Your task to perform on an android device: Open notification settings Image 0: 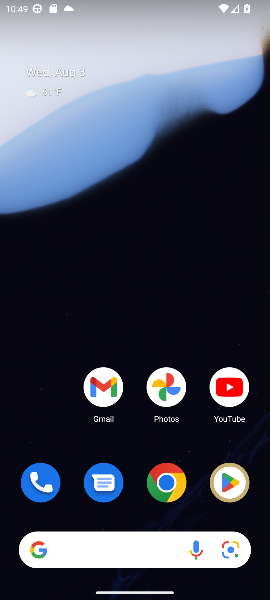
Step 0: drag from (142, 518) to (112, 92)
Your task to perform on an android device: Open notification settings Image 1: 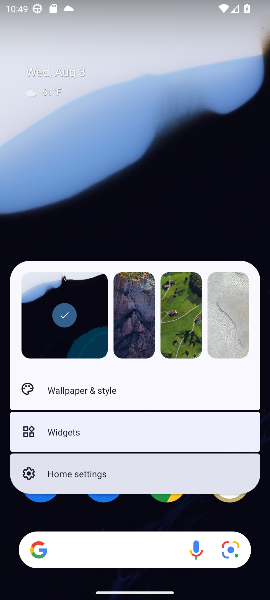
Step 1: click (112, 92)
Your task to perform on an android device: Open notification settings Image 2: 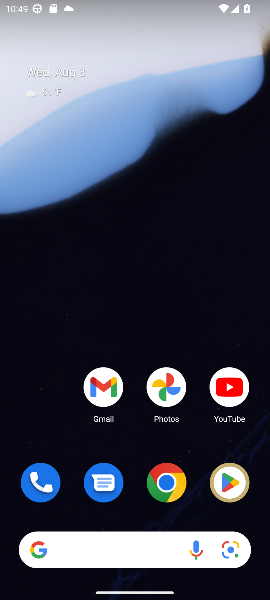
Step 2: drag from (64, 512) to (55, 49)
Your task to perform on an android device: Open notification settings Image 3: 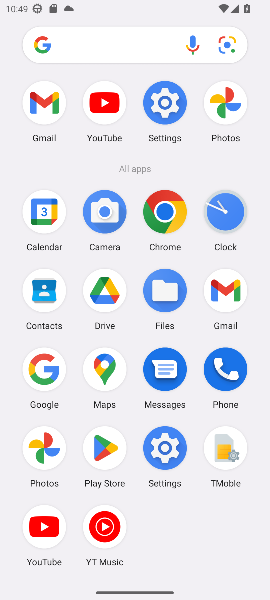
Step 3: click (151, 114)
Your task to perform on an android device: Open notification settings Image 4: 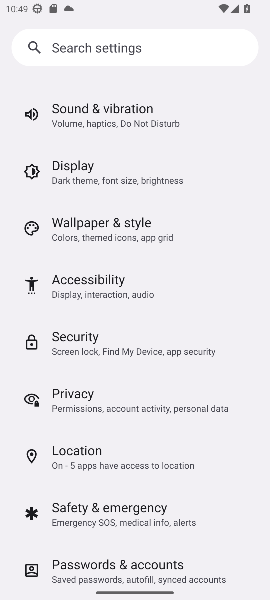
Step 4: task complete